Your task to perform on an android device: toggle airplane mode Image 0: 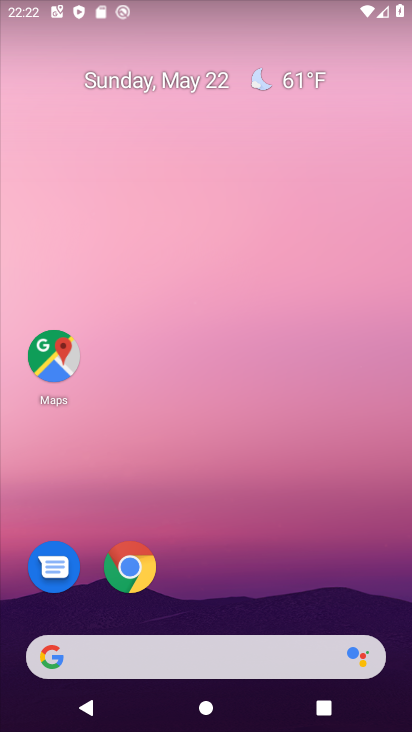
Step 0: drag from (216, 627) to (237, 15)
Your task to perform on an android device: toggle airplane mode Image 1: 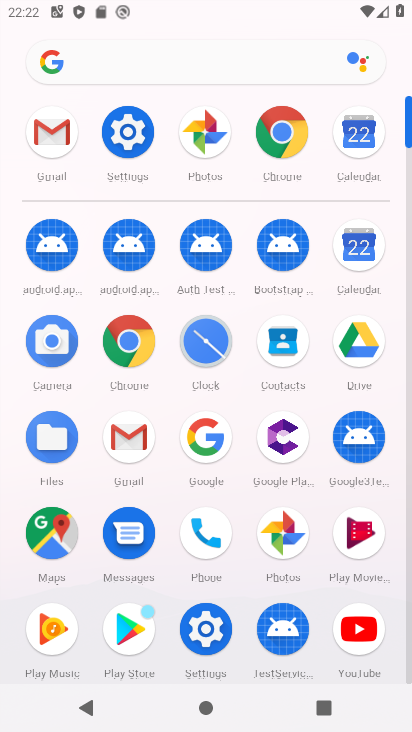
Step 1: click (140, 135)
Your task to perform on an android device: toggle airplane mode Image 2: 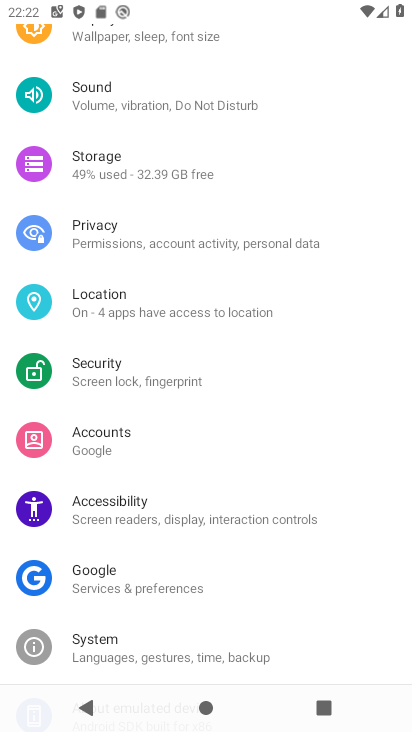
Step 2: drag from (142, 140) to (100, 723)
Your task to perform on an android device: toggle airplane mode Image 3: 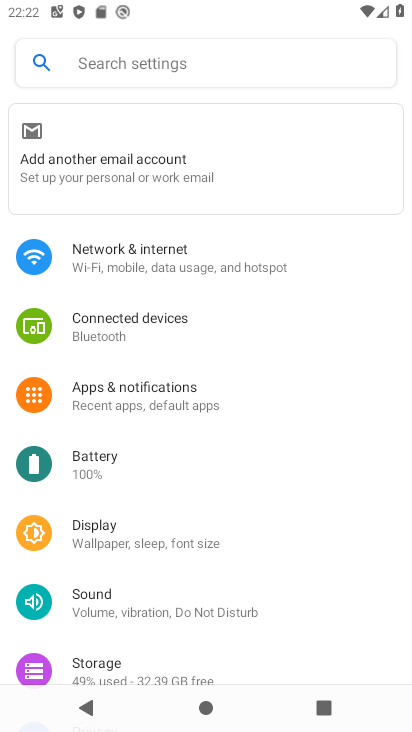
Step 3: click (83, 263)
Your task to perform on an android device: toggle airplane mode Image 4: 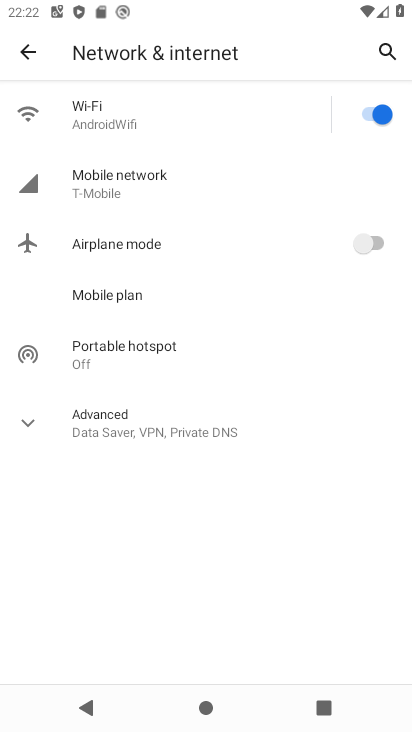
Step 4: click (364, 240)
Your task to perform on an android device: toggle airplane mode Image 5: 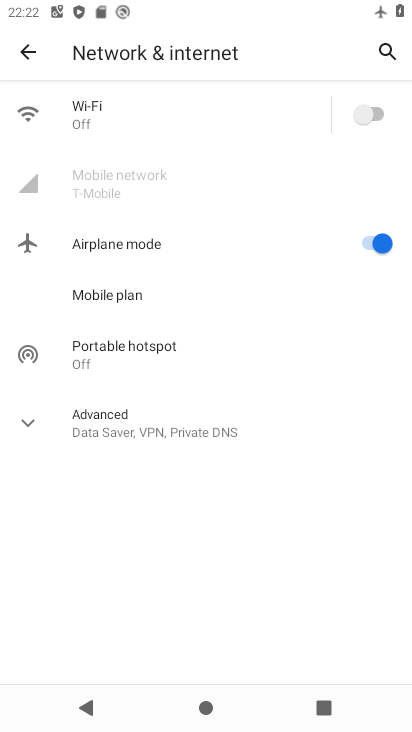
Step 5: task complete